Your task to perform on an android device: turn notification dots on Image 0: 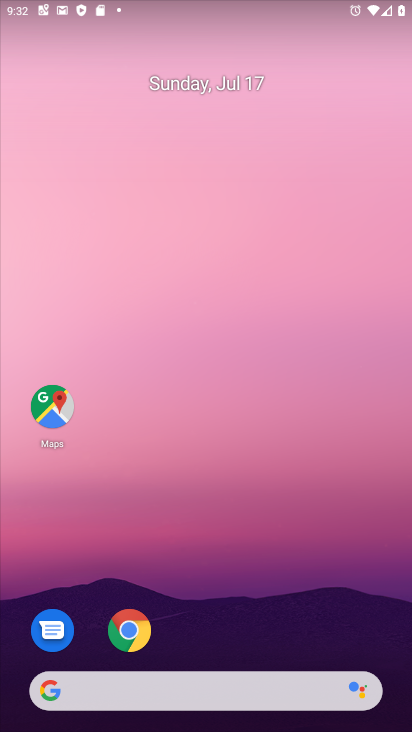
Step 0: drag from (348, 600) to (356, 95)
Your task to perform on an android device: turn notification dots on Image 1: 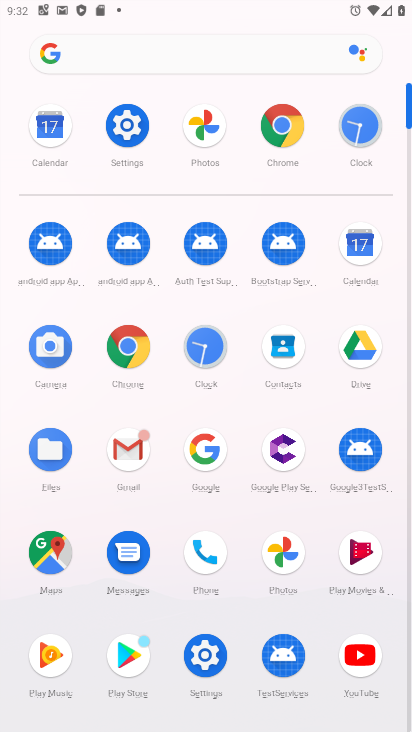
Step 1: click (140, 133)
Your task to perform on an android device: turn notification dots on Image 2: 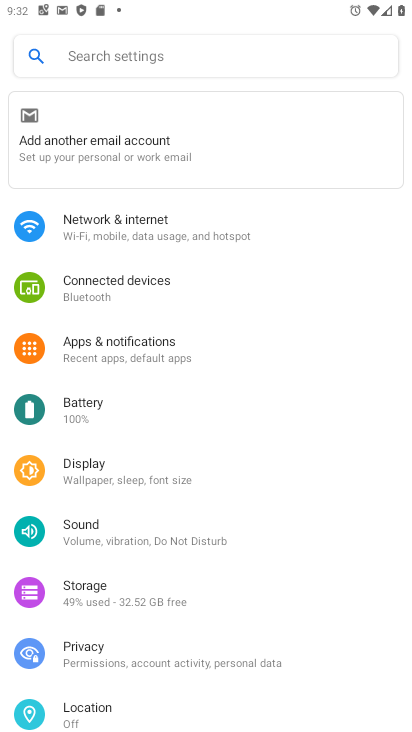
Step 2: drag from (314, 417) to (319, 337)
Your task to perform on an android device: turn notification dots on Image 3: 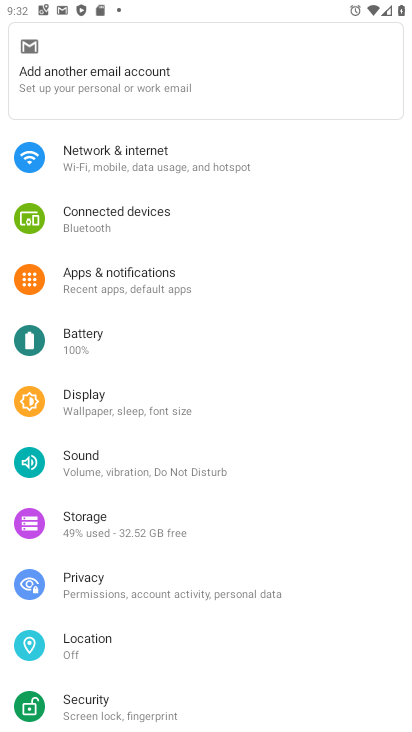
Step 3: drag from (331, 423) to (336, 336)
Your task to perform on an android device: turn notification dots on Image 4: 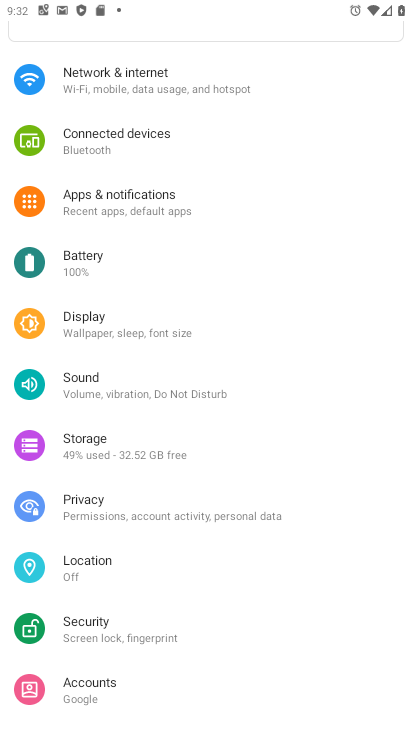
Step 4: drag from (323, 448) to (321, 375)
Your task to perform on an android device: turn notification dots on Image 5: 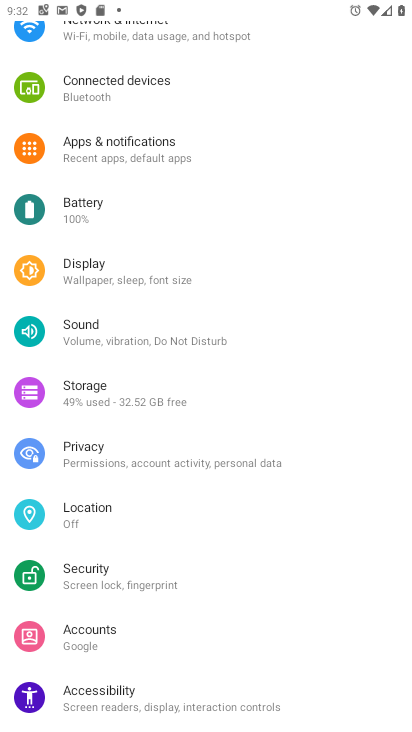
Step 5: drag from (321, 472) to (321, 387)
Your task to perform on an android device: turn notification dots on Image 6: 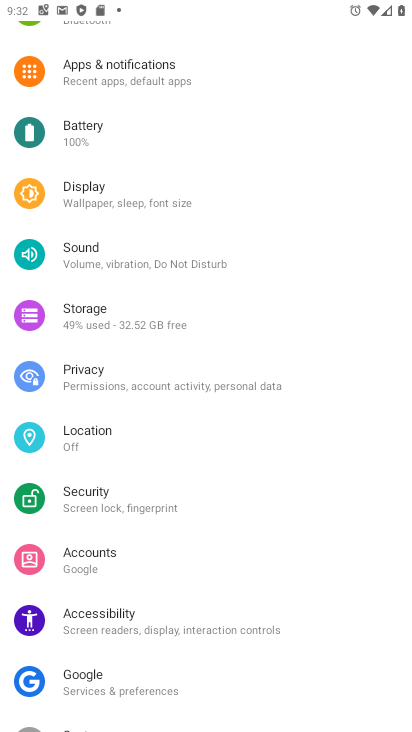
Step 6: drag from (318, 520) to (318, 409)
Your task to perform on an android device: turn notification dots on Image 7: 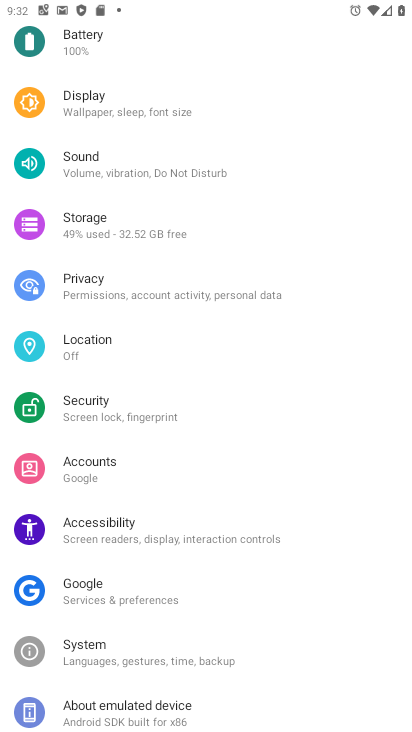
Step 7: drag from (324, 536) to (349, 348)
Your task to perform on an android device: turn notification dots on Image 8: 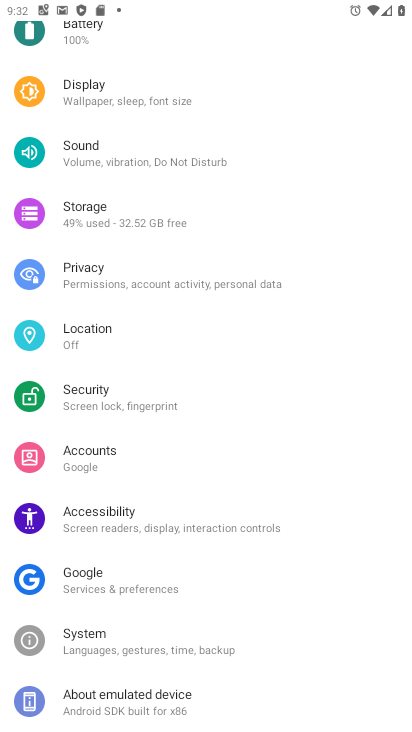
Step 8: drag from (333, 296) to (328, 410)
Your task to perform on an android device: turn notification dots on Image 9: 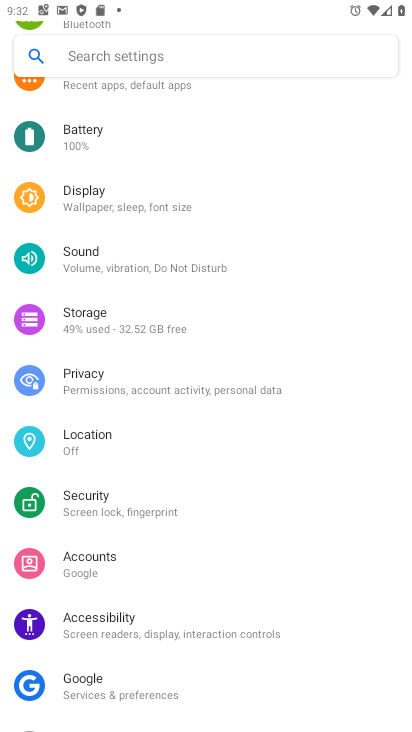
Step 9: drag from (328, 237) to (322, 443)
Your task to perform on an android device: turn notification dots on Image 10: 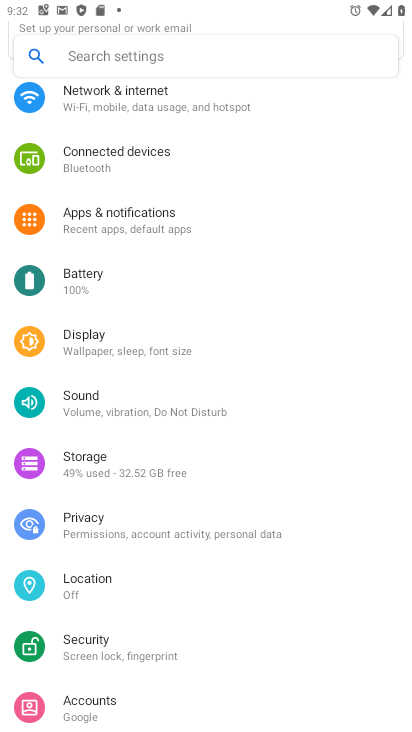
Step 10: drag from (308, 279) to (308, 410)
Your task to perform on an android device: turn notification dots on Image 11: 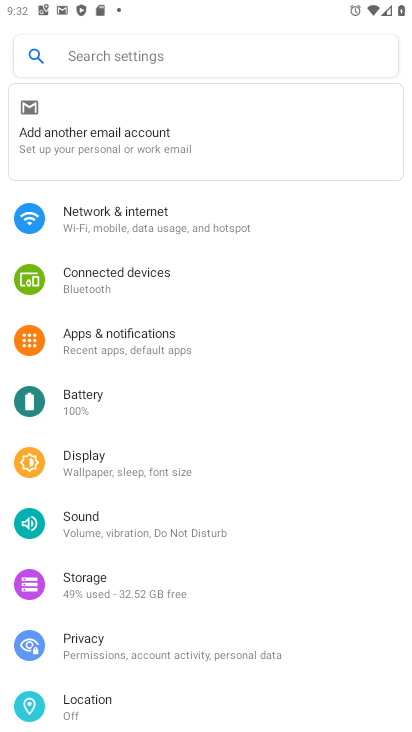
Step 11: click (165, 349)
Your task to perform on an android device: turn notification dots on Image 12: 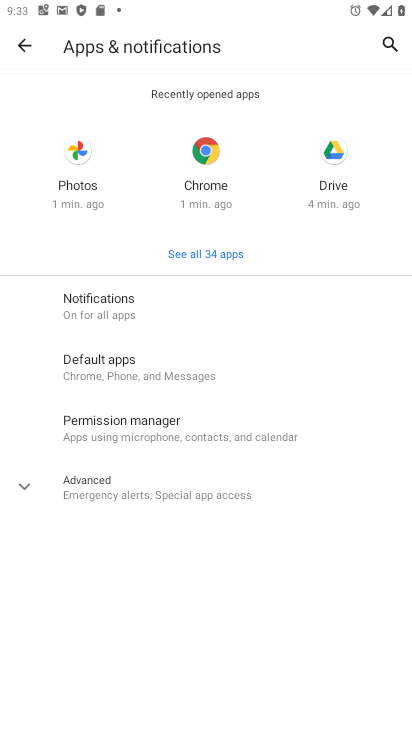
Step 12: click (138, 310)
Your task to perform on an android device: turn notification dots on Image 13: 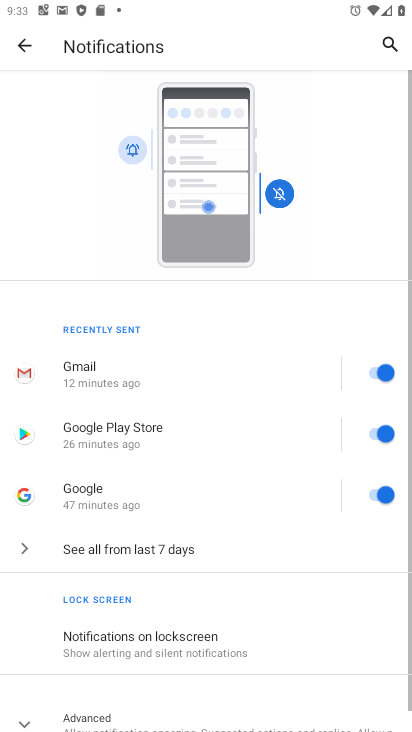
Step 13: drag from (295, 535) to (291, 399)
Your task to perform on an android device: turn notification dots on Image 14: 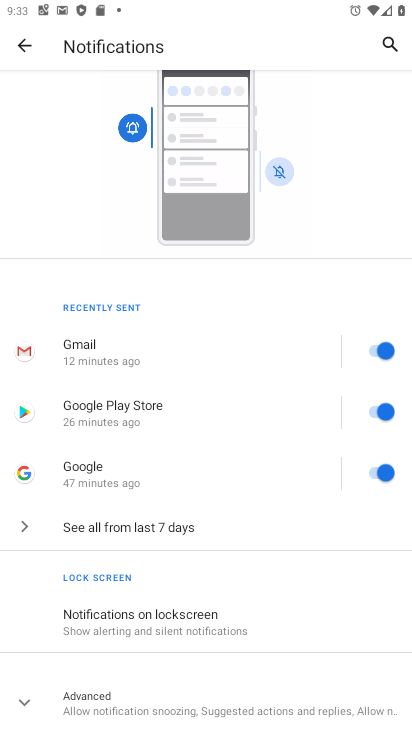
Step 14: click (261, 700)
Your task to perform on an android device: turn notification dots on Image 15: 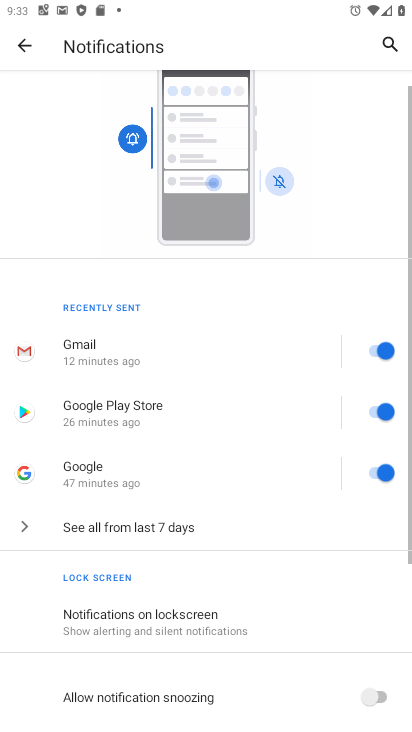
Step 15: task complete